Your task to perform on an android device: Open the phone app and click the voicemail tab. Image 0: 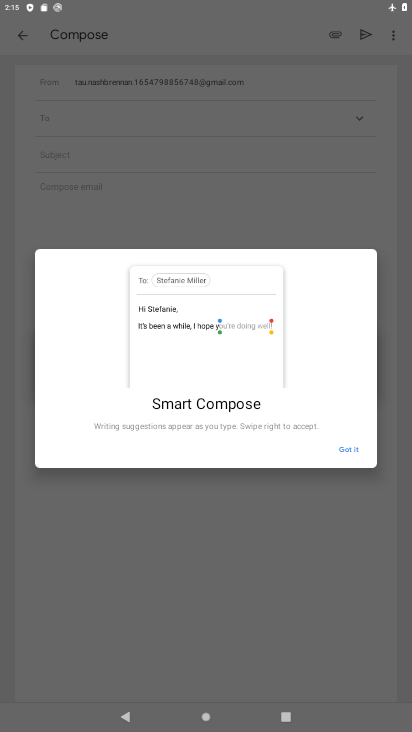
Step 0: press home button
Your task to perform on an android device: Open the phone app and click the voicemail tab. Image 1: 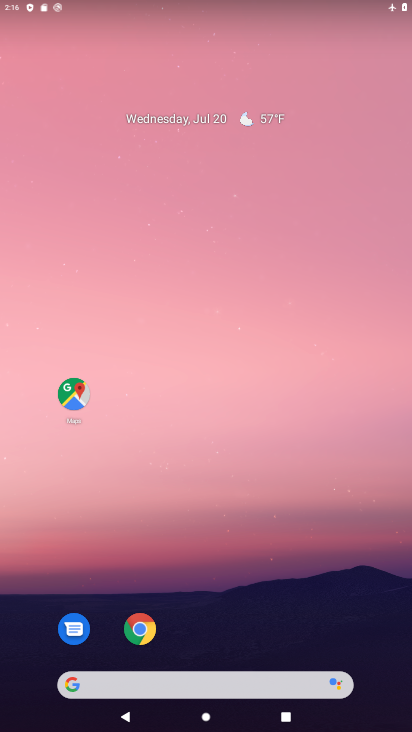
Step 1: drag from (182, 551) to (182, 165)
Your task to perform on an android device: Open the phone app and click the voicemail tab. Image 2: 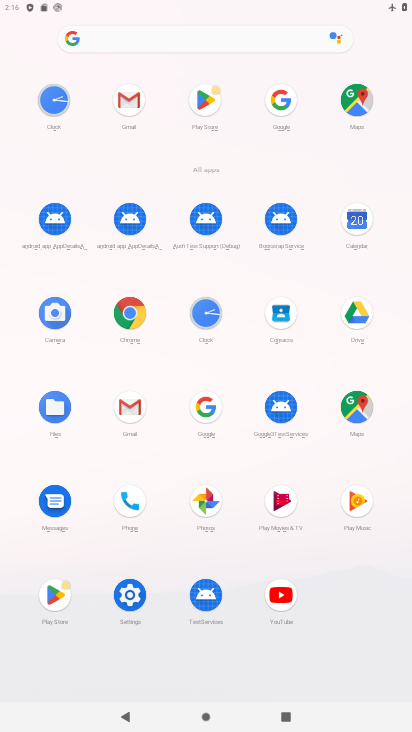
Step 2: click (135, 520)
Your task to perform on an android device: Open the phone app and click the voicemail tab. Image 3: 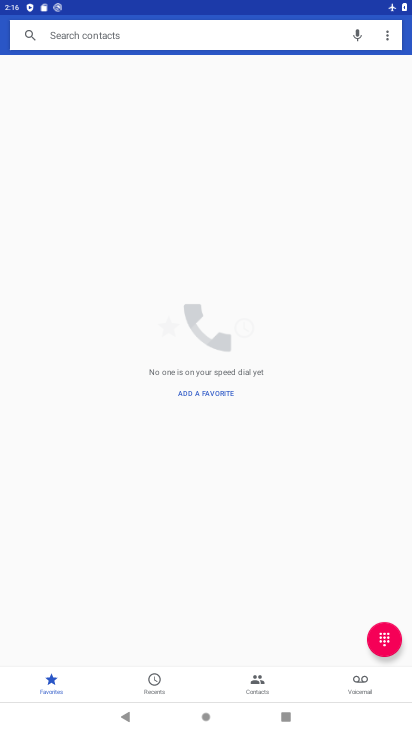
Step 3: click (371, 676)
Your task to perform on an android device: Open the phone app and click the voicemail tab. Image 4: 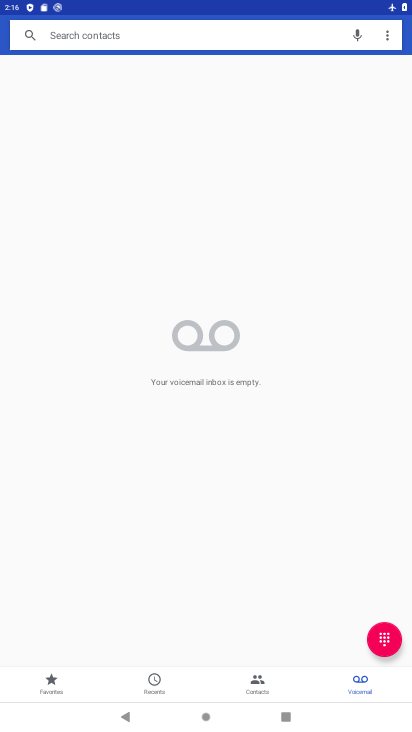
Step 4: click (354, 697)
Your task to perform on an android device: Open the phone app and click the voicemail tab. Image 5: 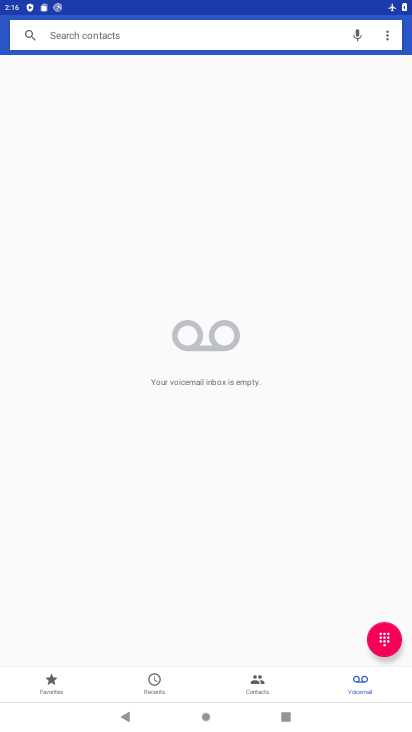
Step 5: task complete